Your task to perform on an android device: manage bookmarks in the chrome app Image 0: 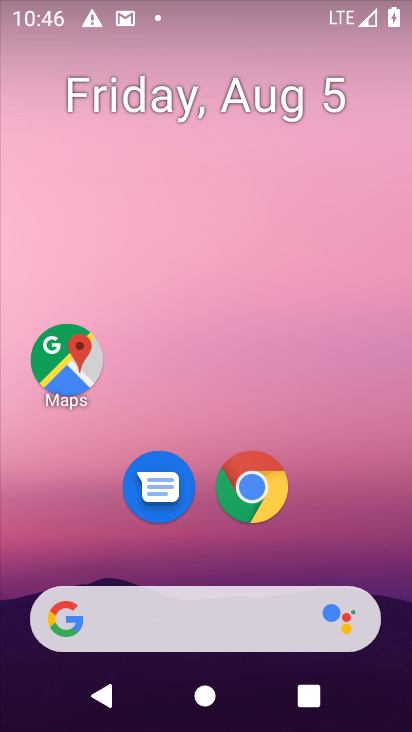
Step 0: click (263, 484)
Your task to perform on an android device: manage bookmarks in the chrome app Image 1: 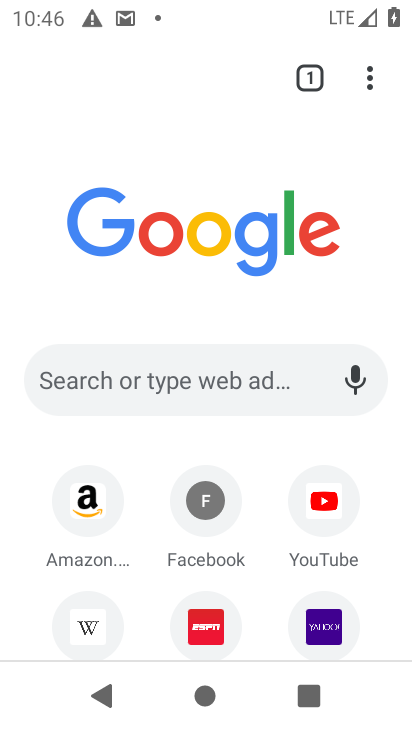
Step 1: drag from (369, 70) to (220, 312)
Your task to perform on an android device: manage bookmarks in the chrome app Image 2: 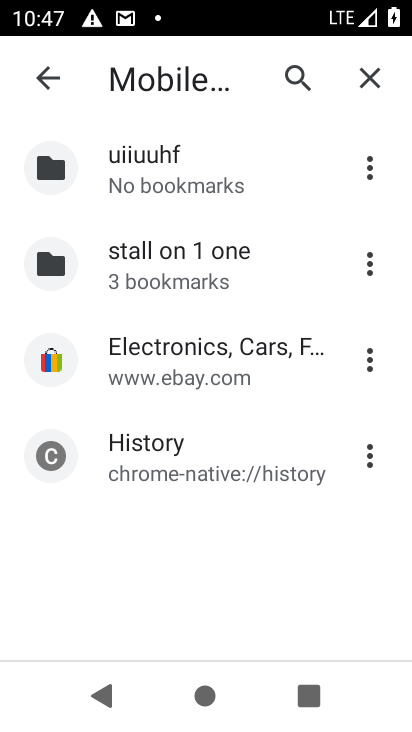
Step 2: click (372, 356)
Your task to perform on an android device: manage bookmarks in the chrome app Image 3: 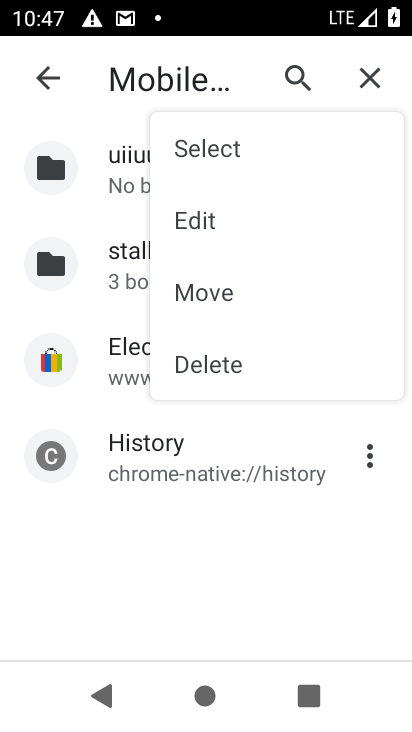
Step 3: click (237, 373)
Your task to perform on an android device: manage bookmarks in the chrome app Image 4: 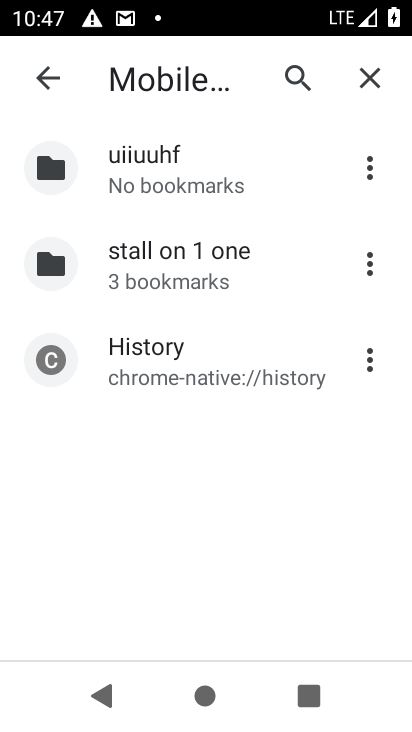
Step 4: task complete